Your task to perform on an android device: Open maps Image 0: 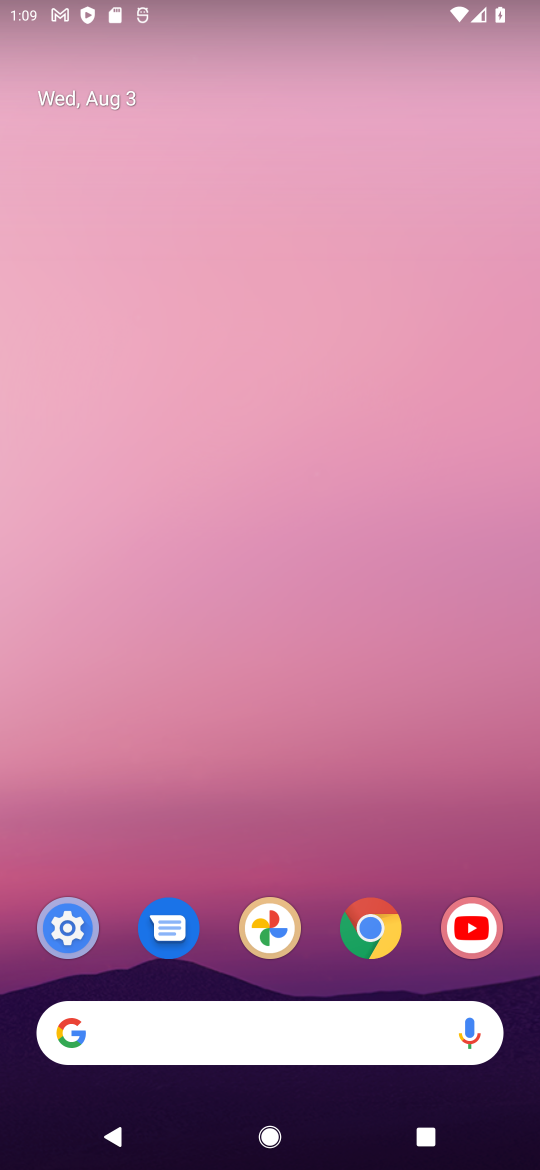
Step 0: drag from (351, 853) to (209, 265)
Your task to perform on an android device: Open maps Image 1: 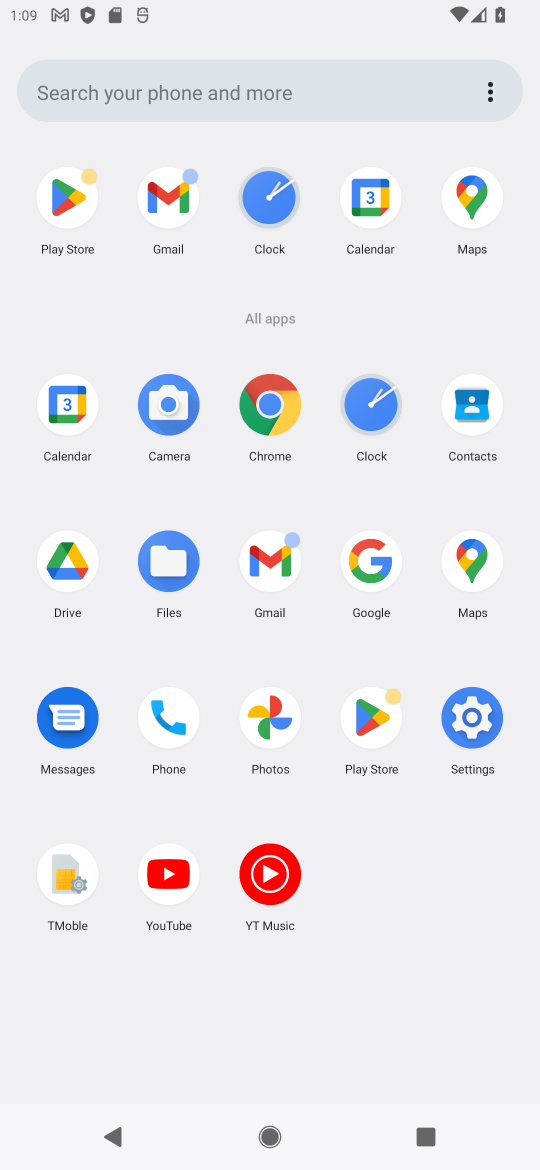
Step 1: click (476, 571)
Your task to perform on an android device: Open maps Image 2: 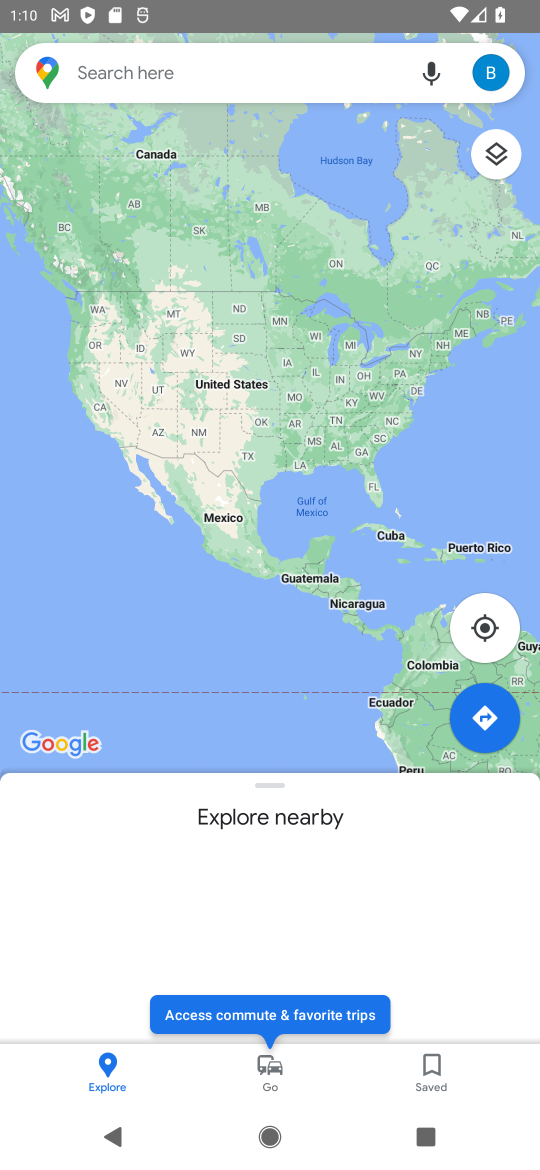
Step 2: task complete